Your task to perform on an android device: Check the news Image 0: 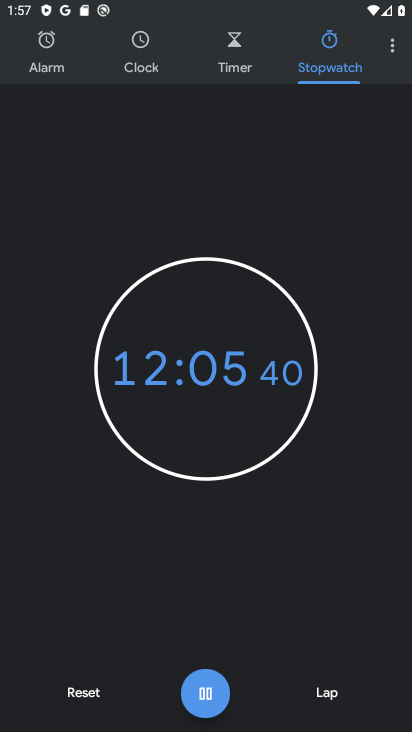
Step 0: press home button
Your task to perform on an android device: Check the news Image 1: 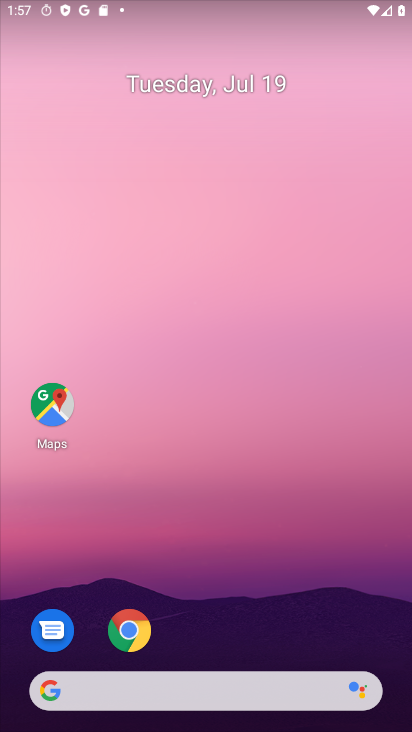
Step 1: click (198, 684)
Your task to perform on an android device: Check the news Image 2: 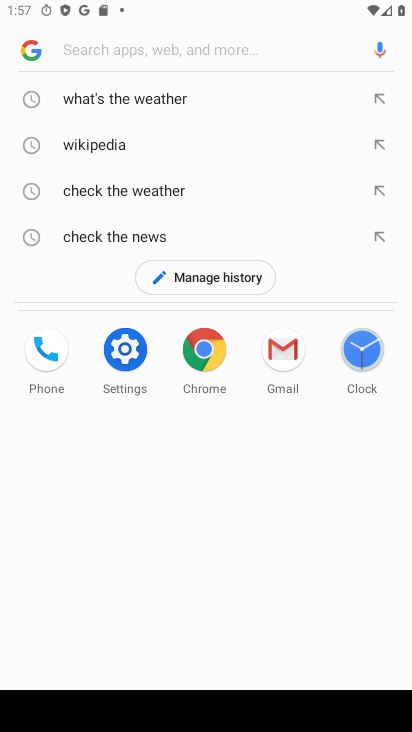
Step 2: type "news"
Your task to perform on an android device: Check the news Image 3: 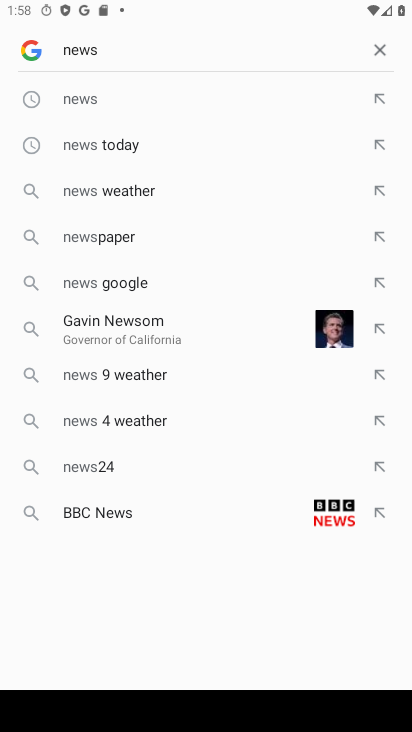
Step 3: click (177, 99)
Your task to perform on an android device: Check the news Image 4: 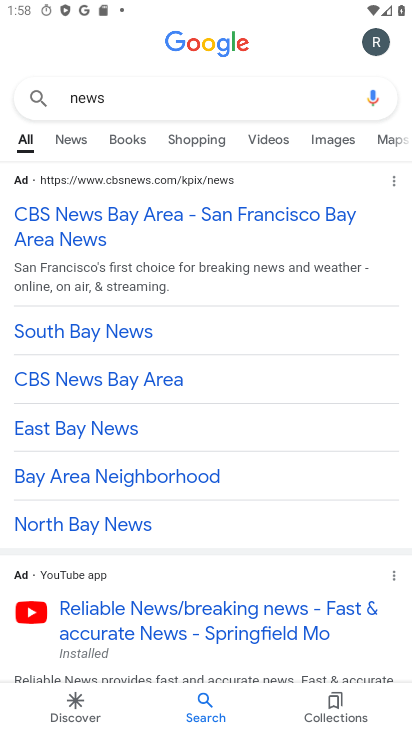
Step 4: click (63, 135)
Your task to perform on an android device: Check the news Image 5: 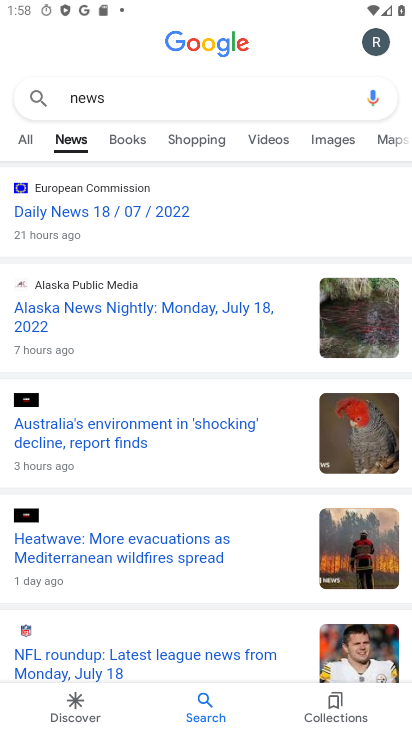
Step 5: task complete